Your task to perform on an android device: turn on airplane mode Image 0: 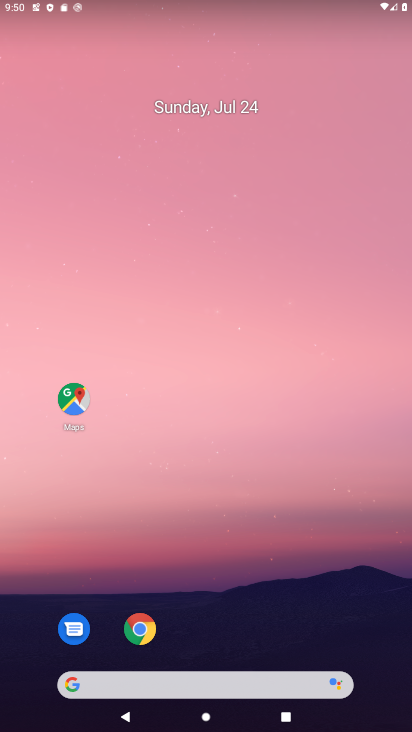
Step 0: drag from (293, 658) to (239, 39)
Your task to perform on an android device: turn on airplane mode Image 1: 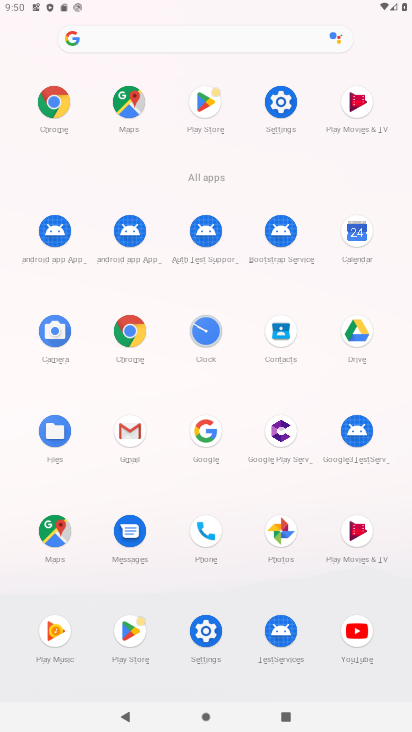
Step 1: click (259, 126)
Your task to perform on an android device: turn on airplane mode Image 2: 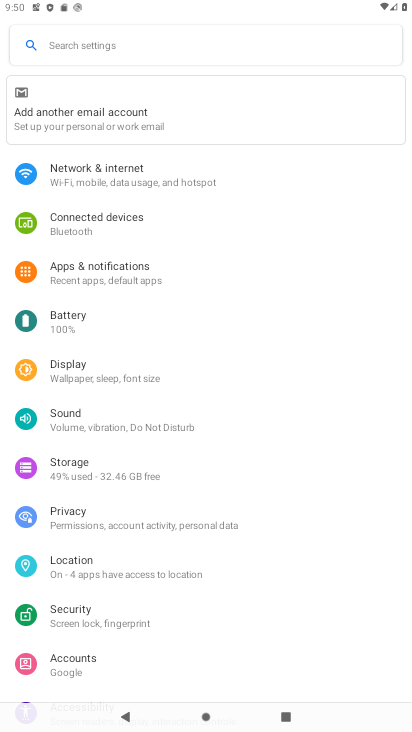
Step 2: click (96, 156)
Your task to perform on an android device: turn on airplane mode Image 3: 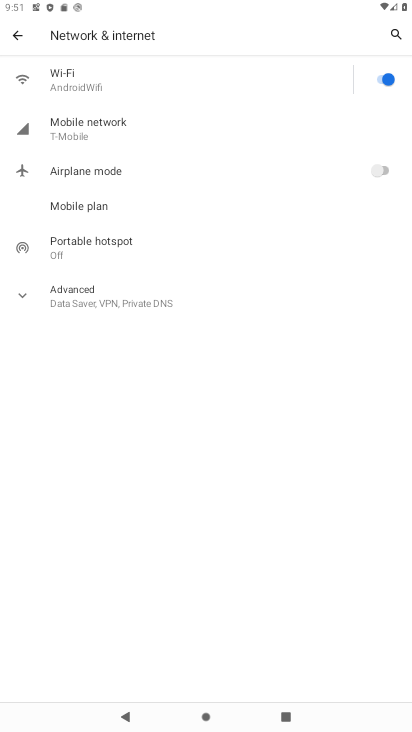
Step 3: click (366, 179)
Your task to perform on an android device: turn on airplane mode Image 4: 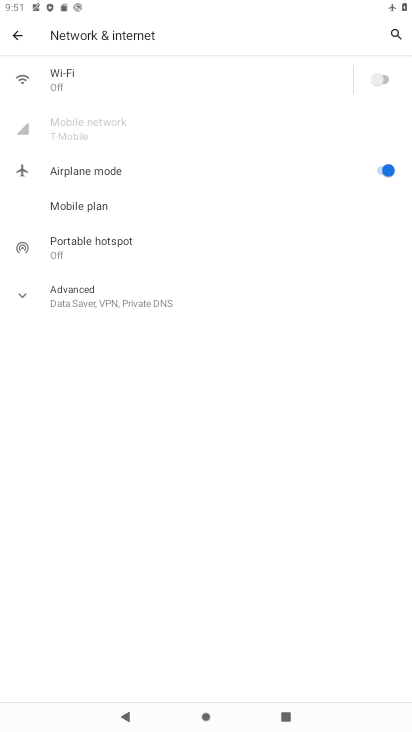
Step 4: click (389, 77)
Your task to perform on an android device: turn on airplane mode Image 5: 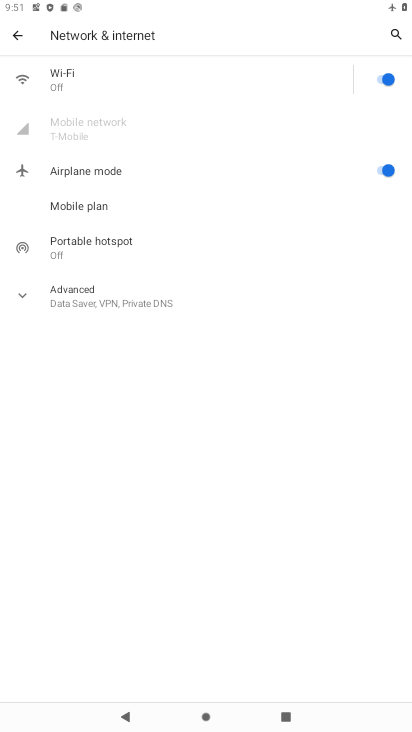
Step 5: task complete